Your task to perform on an android device: Open Youtube and go to the subscriptions tab Image 0: 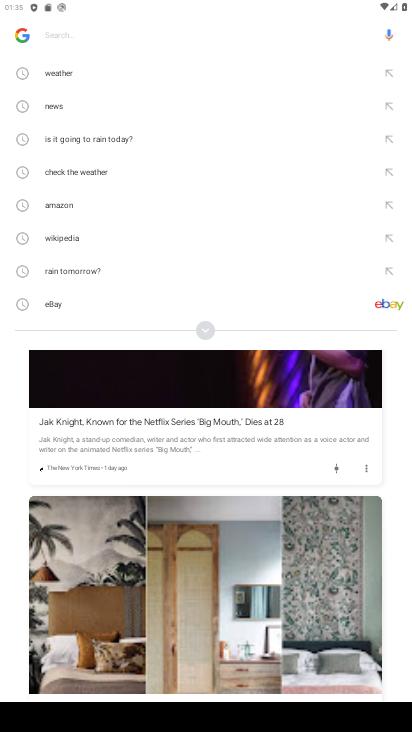
Step 0: press home button
Your task to perform on an android device: Open Youtube and go to the subscriptions tab Image 1: 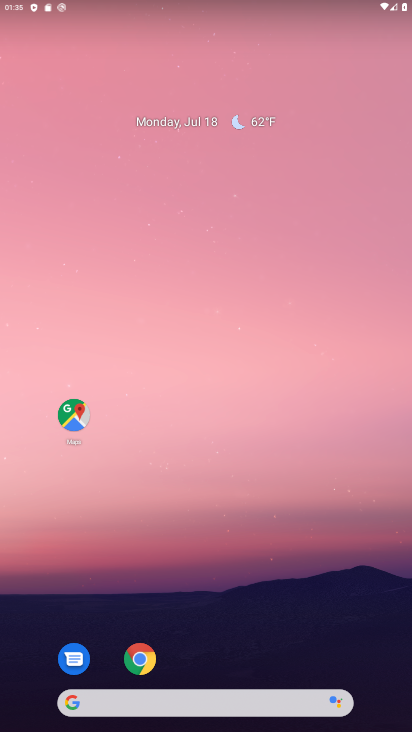
Step 1: drag from (374, 663) to (235, 204)
Your task to perform on an android device: Open Youtube and go to the subscriptions tab Image 2: 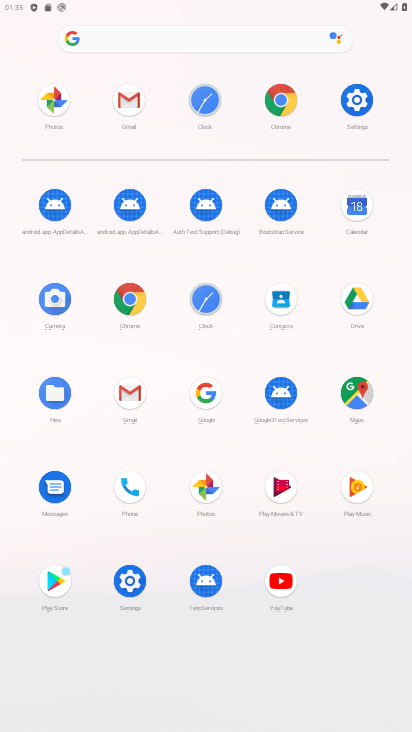
Step 2: click (280, 578)
Your task to perform on an android device: Open Youtube and go to the subscriptions tab Image 3: 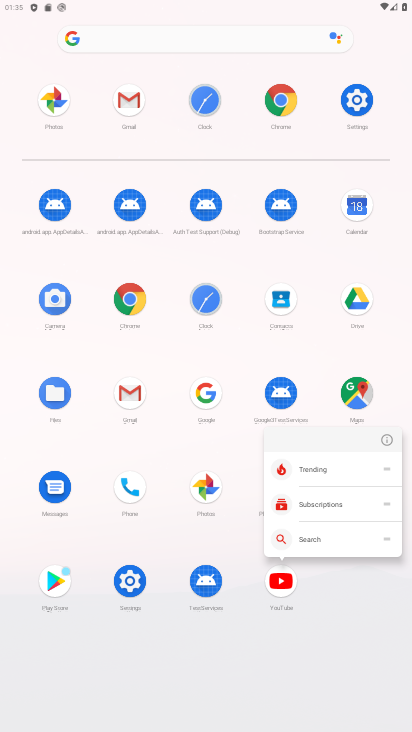
Step 3: click (281, 578)
Your task to perform on an android device: Open Youtube and go to the subscriptions tab Image 4: 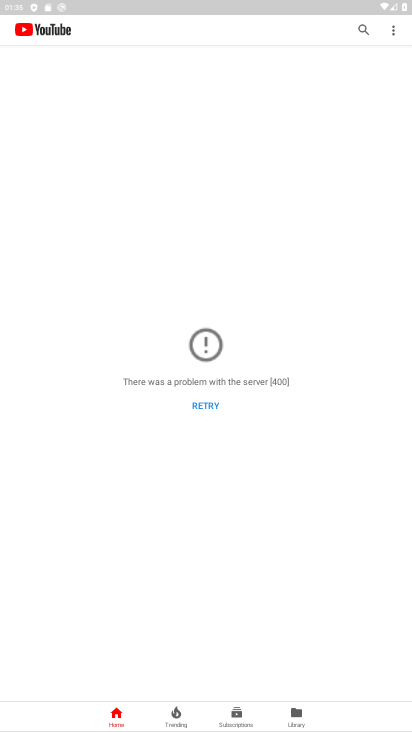
Step 4: click (235, 715)
Your task to perform on an android device: Open Youtube and go to the subscriptions tab Image 5: 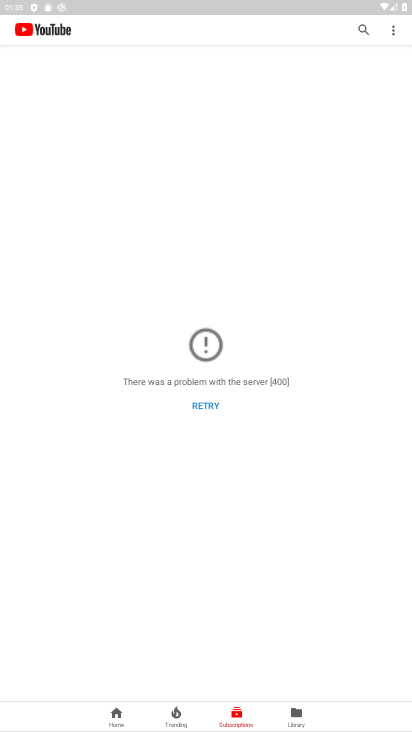
Step 5: task complete